Your task to perform on an android device: toggle improve location accuracy Image 0: 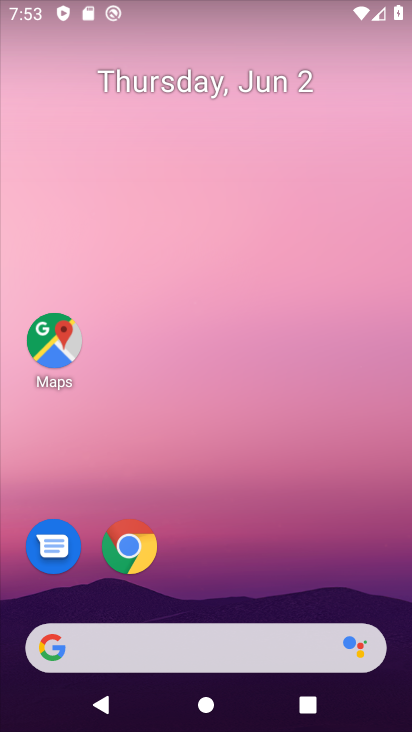
Step 0: drag from (241, 660) to (202, 260)
Your task to perform on an android device: toggle improve location accuracy Image 1: 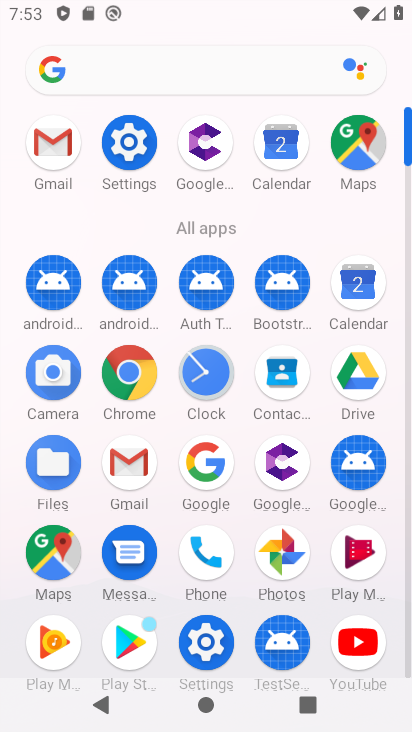
Step 1: click (134, 148)
Your task to perform on an android device: toggle improve location accuracy Image 2: 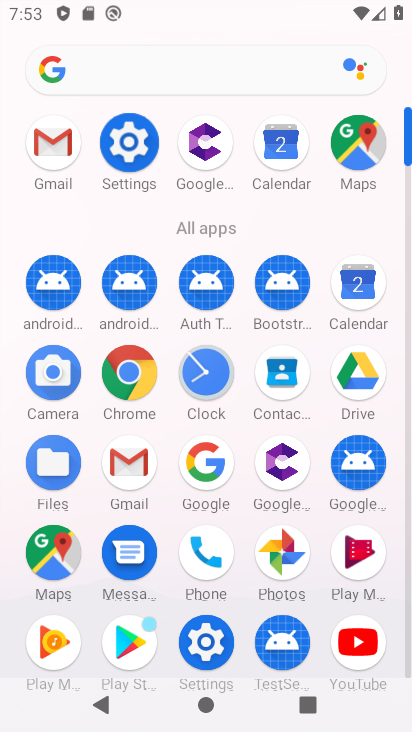
Step 2: click (134, 148)
Your task to perform on an android device: toggle improve location accuracy Image 3: 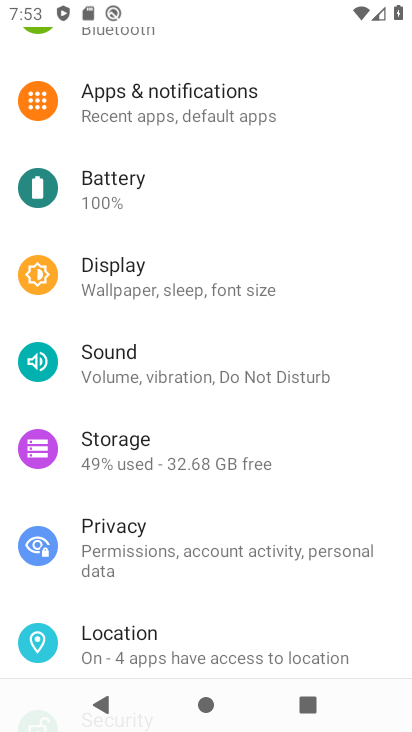
Step 3: click (135, 142)
Your task to perform on an android device: toggle improve location accuracy Image 4: 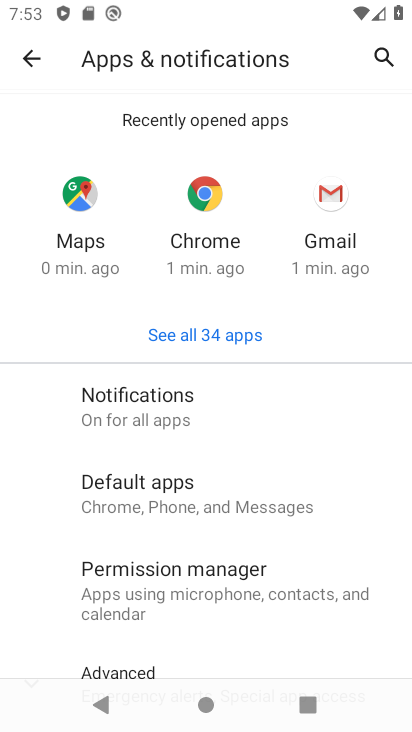
Step 4: click (21, 55)
Your task to perform on an android device: toggle improve location accuracy Image 5: 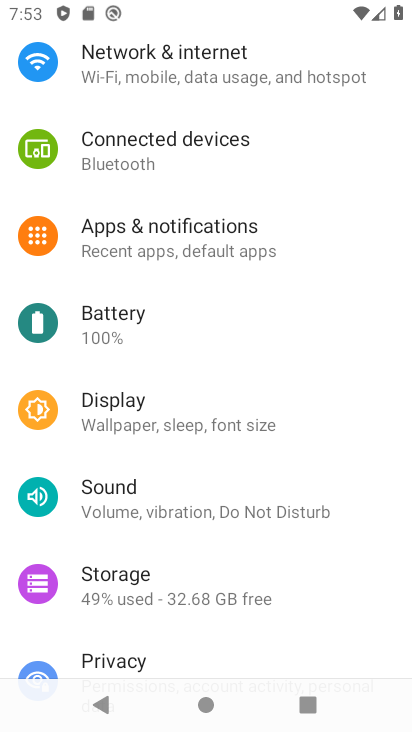
Step 5: drag from (172, 601) to (138, 235)
Your task to perform on an android device: toggle improve location accuracy Image 6: 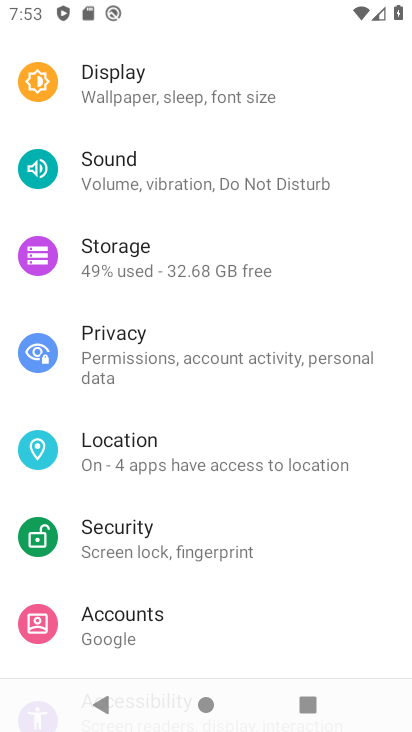
Step 6: drag from (172, 482) to (124, 158)
Your task to perform on an android device: toggle improve location accuracy Image 7: 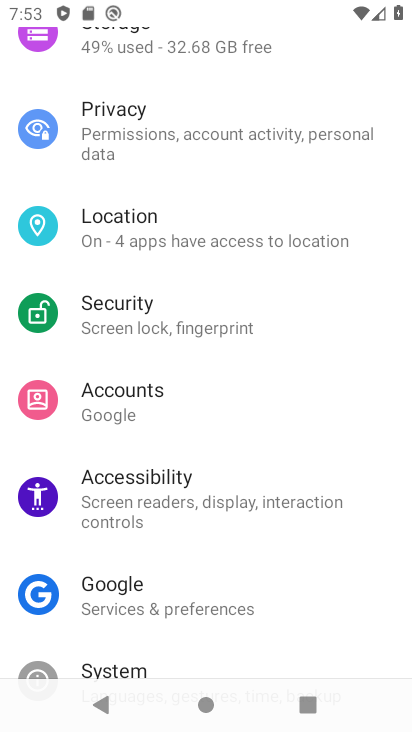
Step 7: click (160, 226)
Your task to perform on an android device: toggle improve location accuracy Image 8: 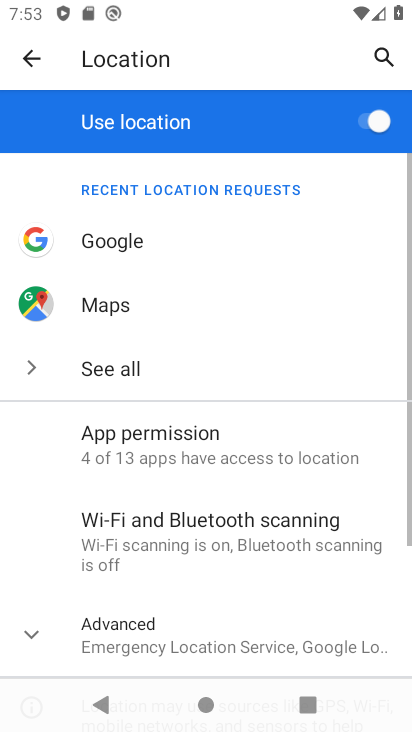
Step 8: click (136, 638)
Your task to perform on an android device: toggle improve location accuracy Image 9: 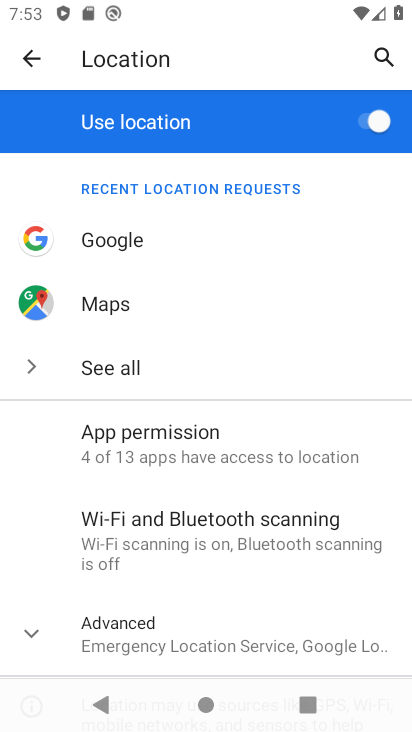
Step 9: click (129, 627)
Your task to perform on an android device: toggle improve location accuracy Image 10: 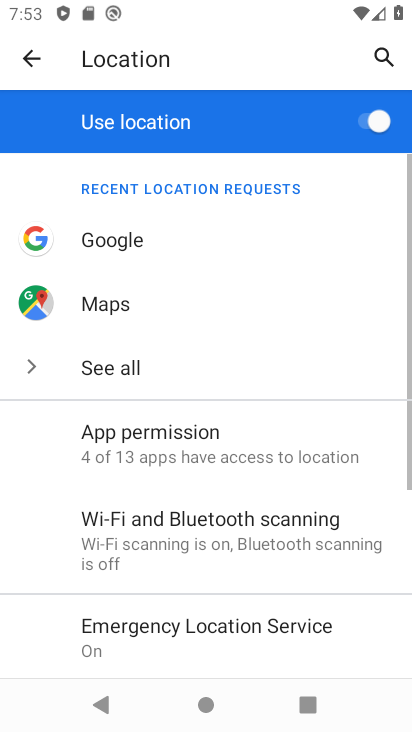
Step 10: drag from (246, 593) to (193, 234)
Your task to perform on an android device: toggle improve location accuracy Image 11: 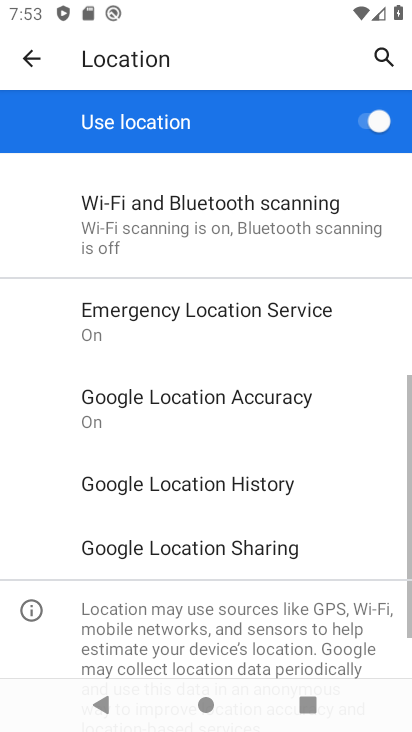
Step 11: drag from (187, 538) to (179, 213)
Your task to perform on an android device: toggle improve location accuracy Image 12: 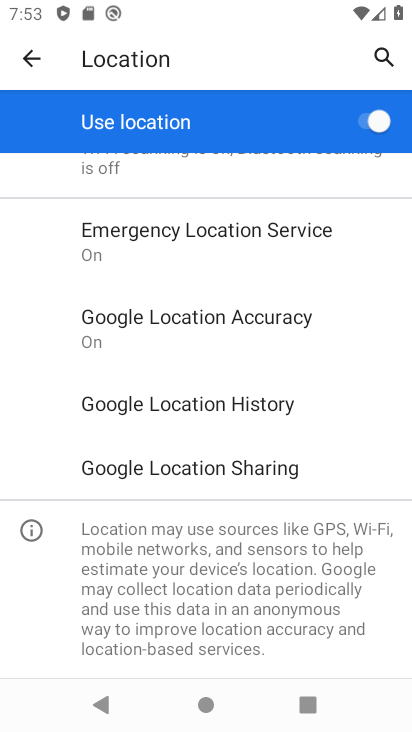
Step 12: click (257, 312)
Your task to perform on an android device: toggle improve location accuracy Image 13: 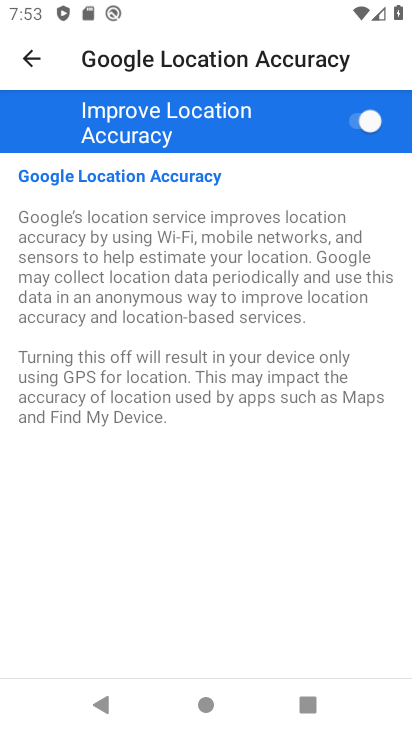
Step 13: click (356, 118)
Your task to perform on an android device: toggle improve location accuracy Image 14: 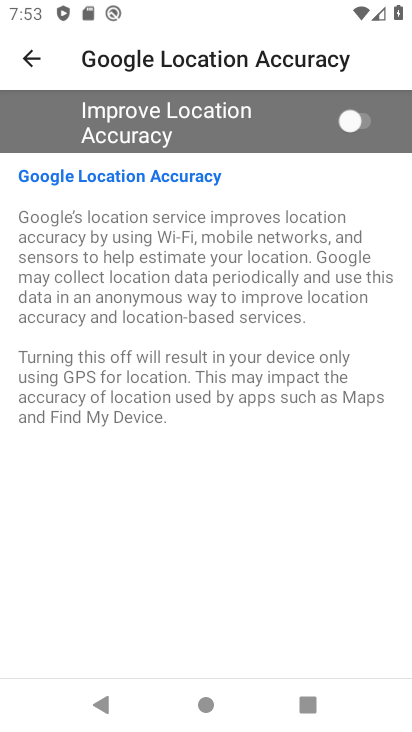
Step 14: task complete